Your task to perform on an android device: change notification settings in the gmail app Image 0: 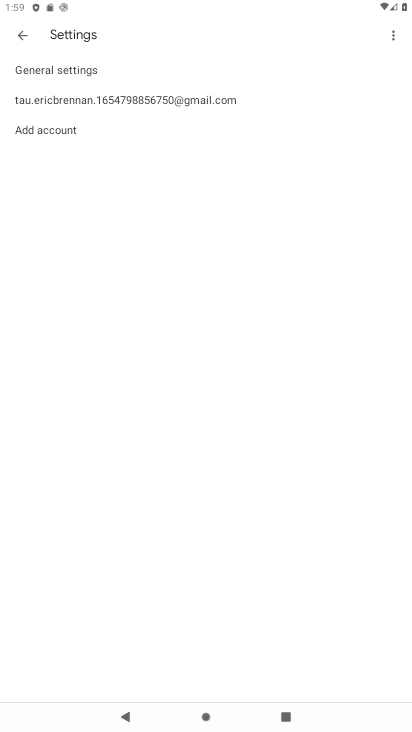
Step 0: press home button
Your task to perform on an android device: change notification settings in the gmail app Image 1: 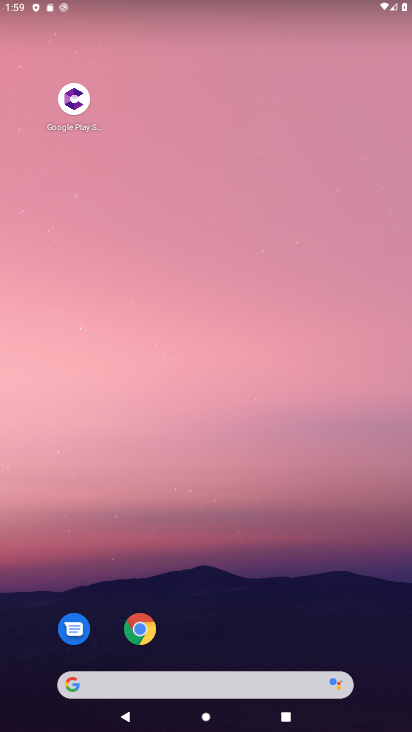
Step 1: drag from (215, 627) to (249, 264)
Your task to perform on an android device: change notification settings in the gmail app Image 2: 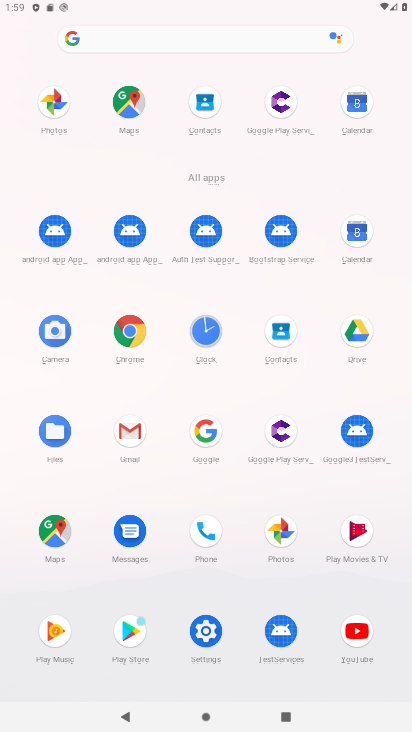
Step 2: click (130, 438)
Your task to perform on an android device: change notification settings in the gmail app Image 3: 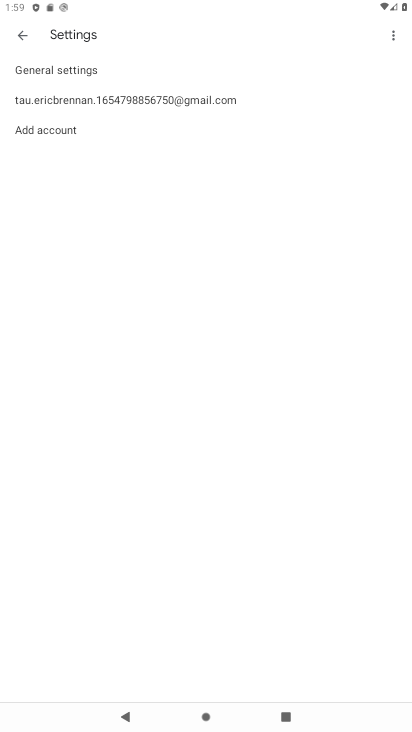
Step 3: click (90, 100)
Your task to perform on an android device: change notification settings in the gmail app Image 4: 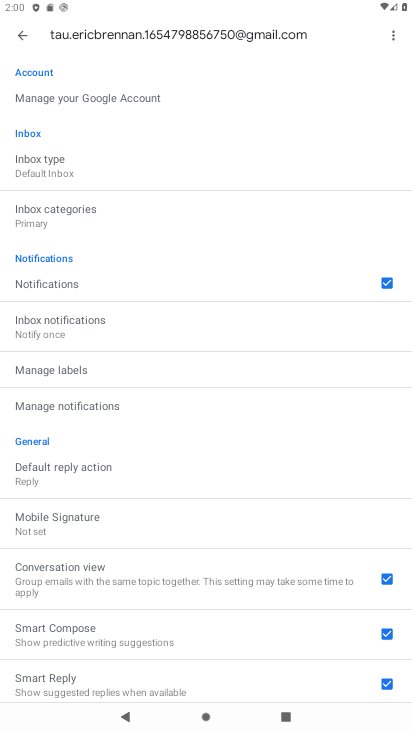
Step 4: click (118, 407)
Your task to perform on an android device: change notification settings in the gmail app Image 5: 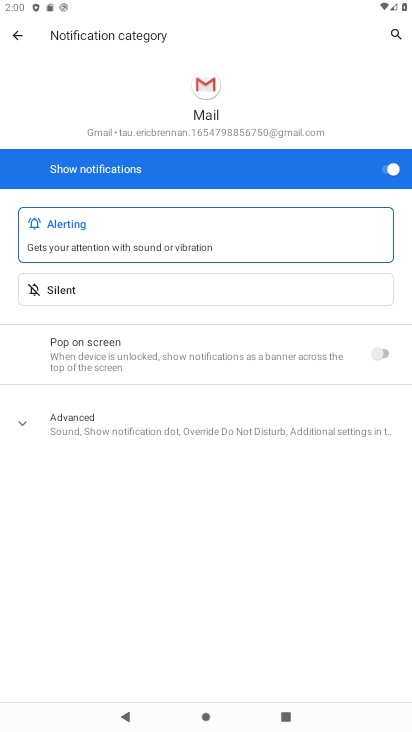
Step 5: click (375, 169)
Your task to perform on an android device: change notification settings in the gmail app Image 6: 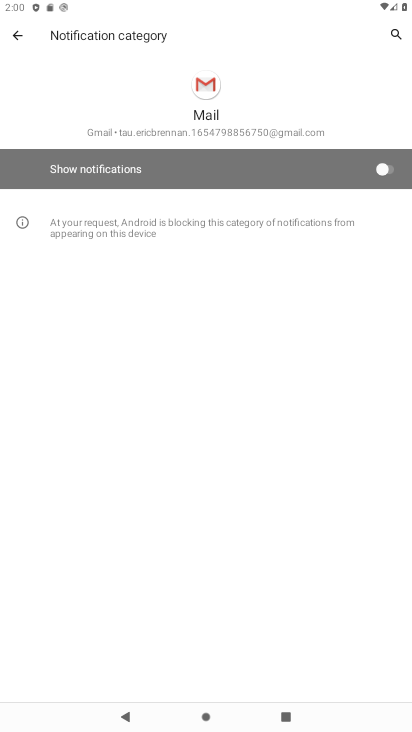
Step 6: task complete